Your task to perform on an android device: Go to Android settings Image 0: 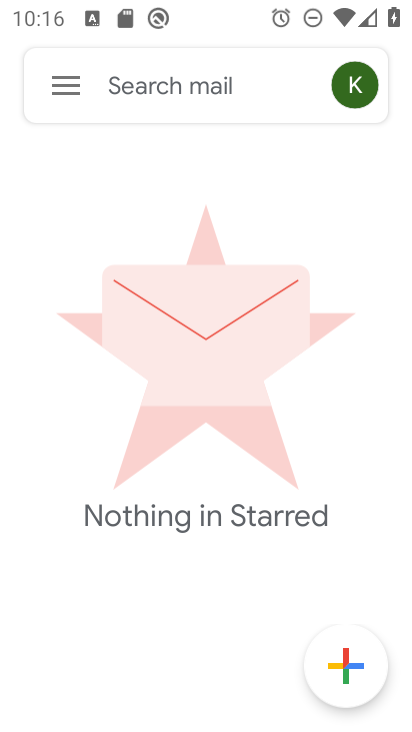
Step 0: press home button
Your task to perform on an android device: Go to Android settings Image 1: 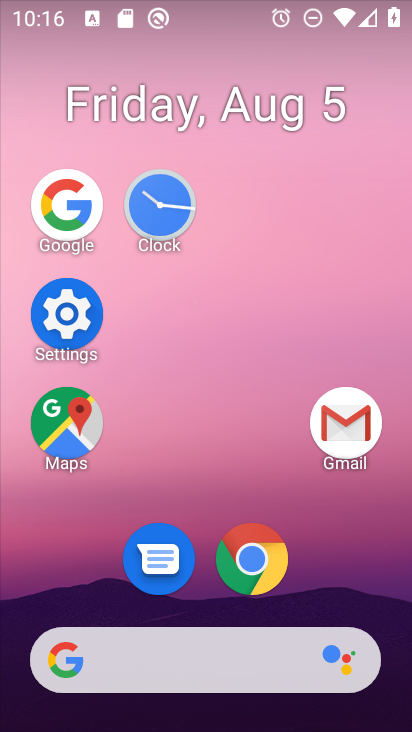
Step 1: click (74, 309)
Your task to perform on an android device: Go to Android settings Image 2: 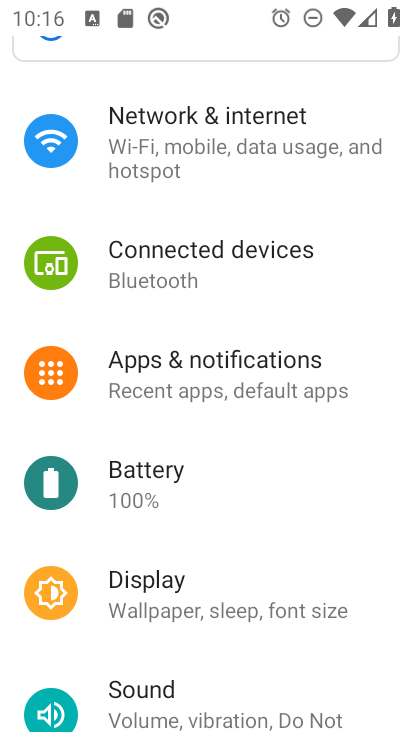
Step 2: task complete